Your task to perform on an android device: Open Google Image 0: 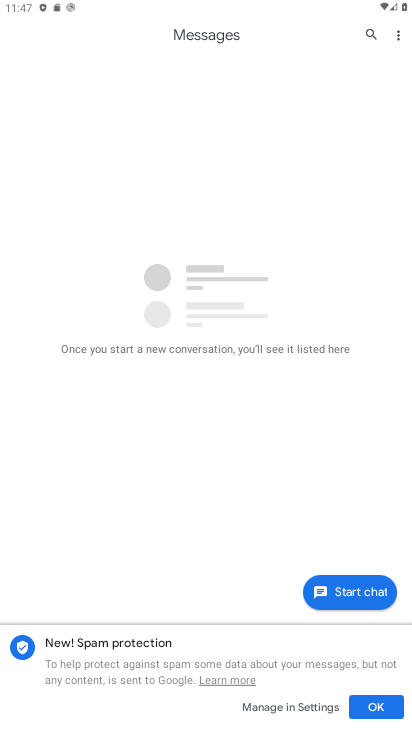
Step 0: task complete